Your task to perform on an android device: remove spam from my inbox in the gmail app Image 0: 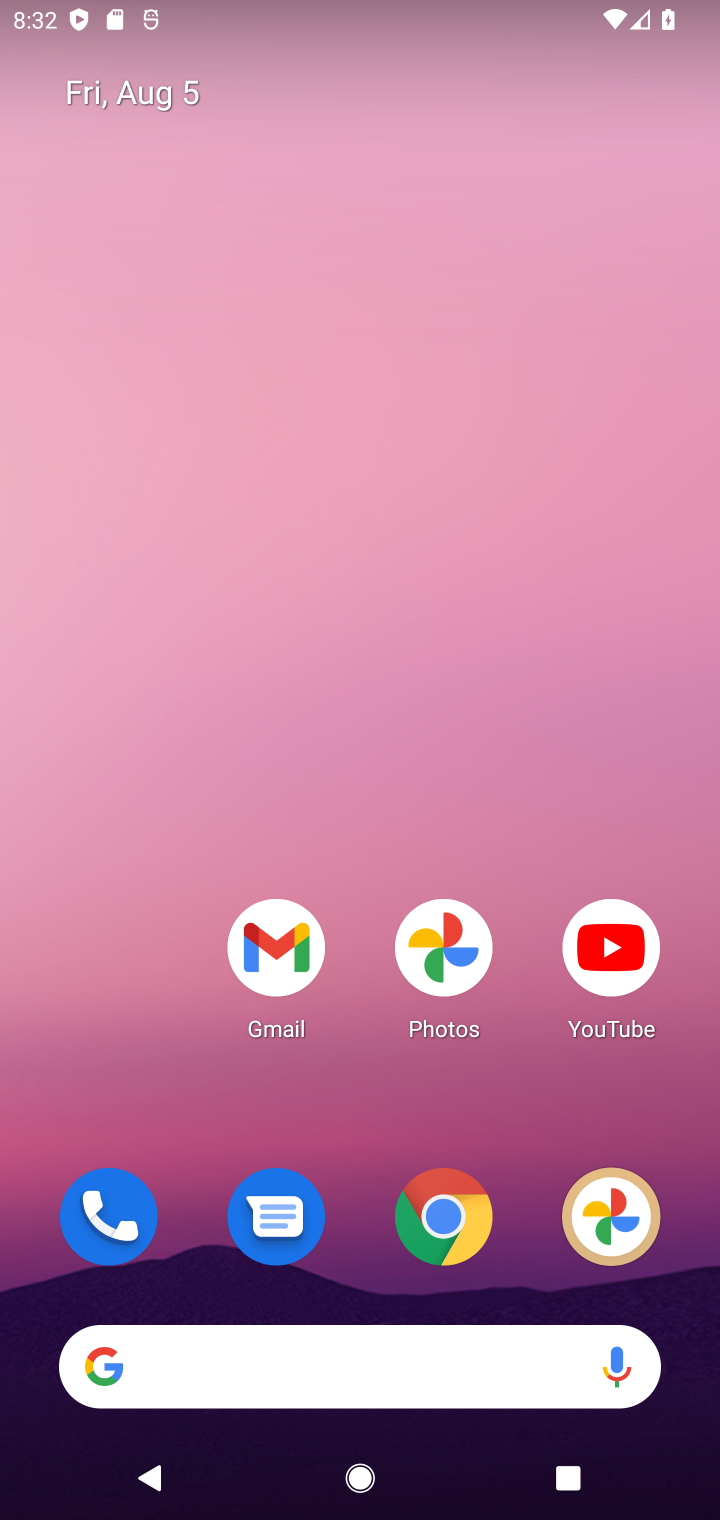
Step 0: drag from (401, 1162) to (444, 418)
Your task to perform on an android device: remove spam from my inbox in the gmail app Image 1: 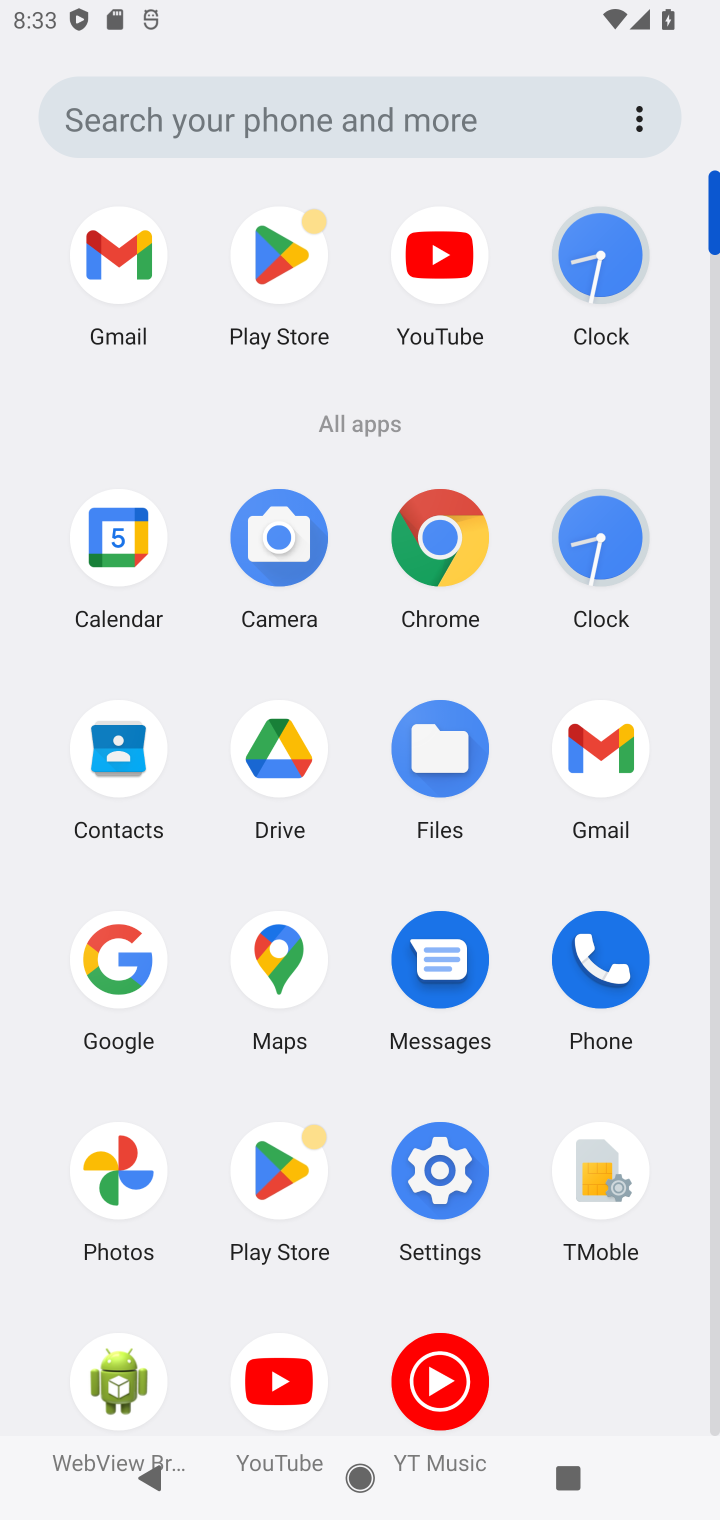
Step 1: click (587, 756)
Your task to perform on an android device: remove spam from my inbox in the gmail app Image 2: 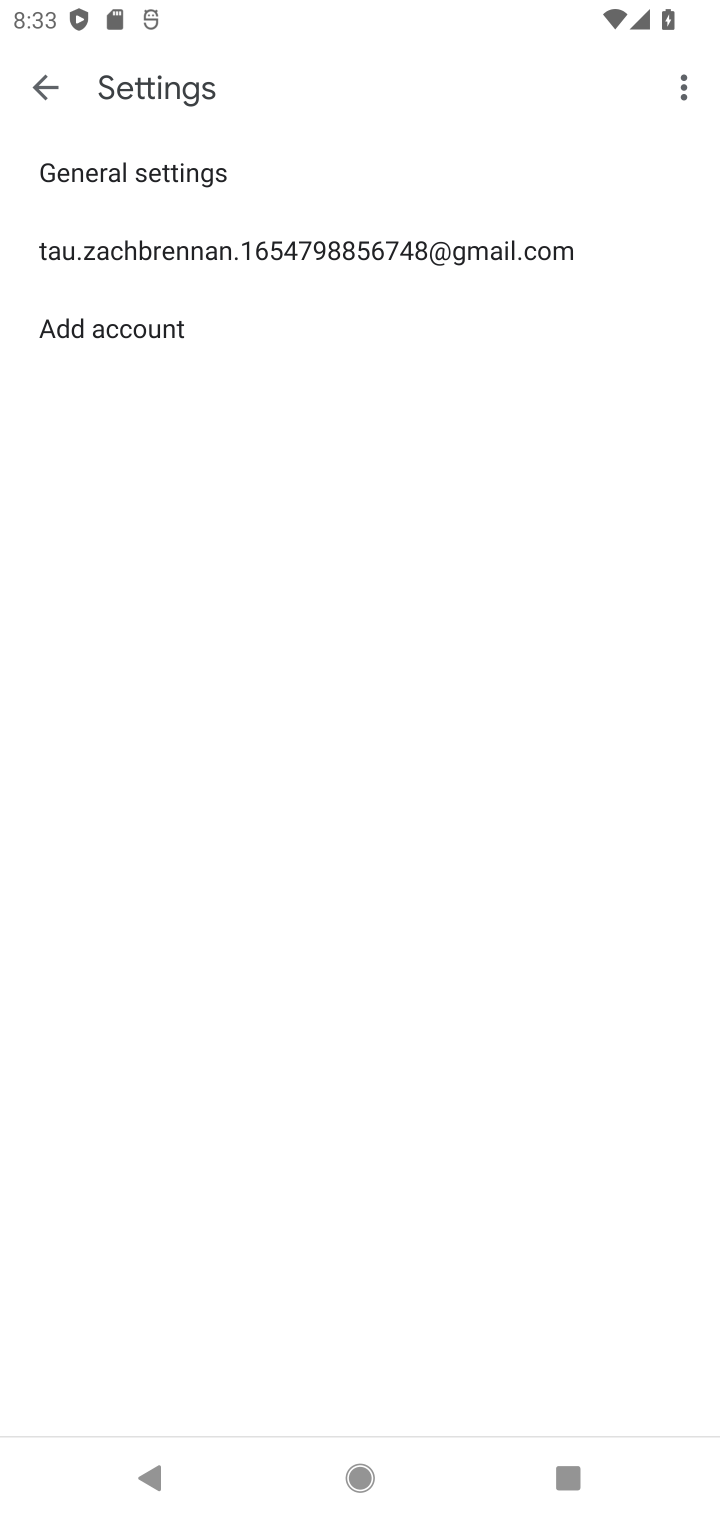
Step 2: click (362, 247)
Your task to perform on an android device: remove spam from my inbox in the gmail app Image 3: 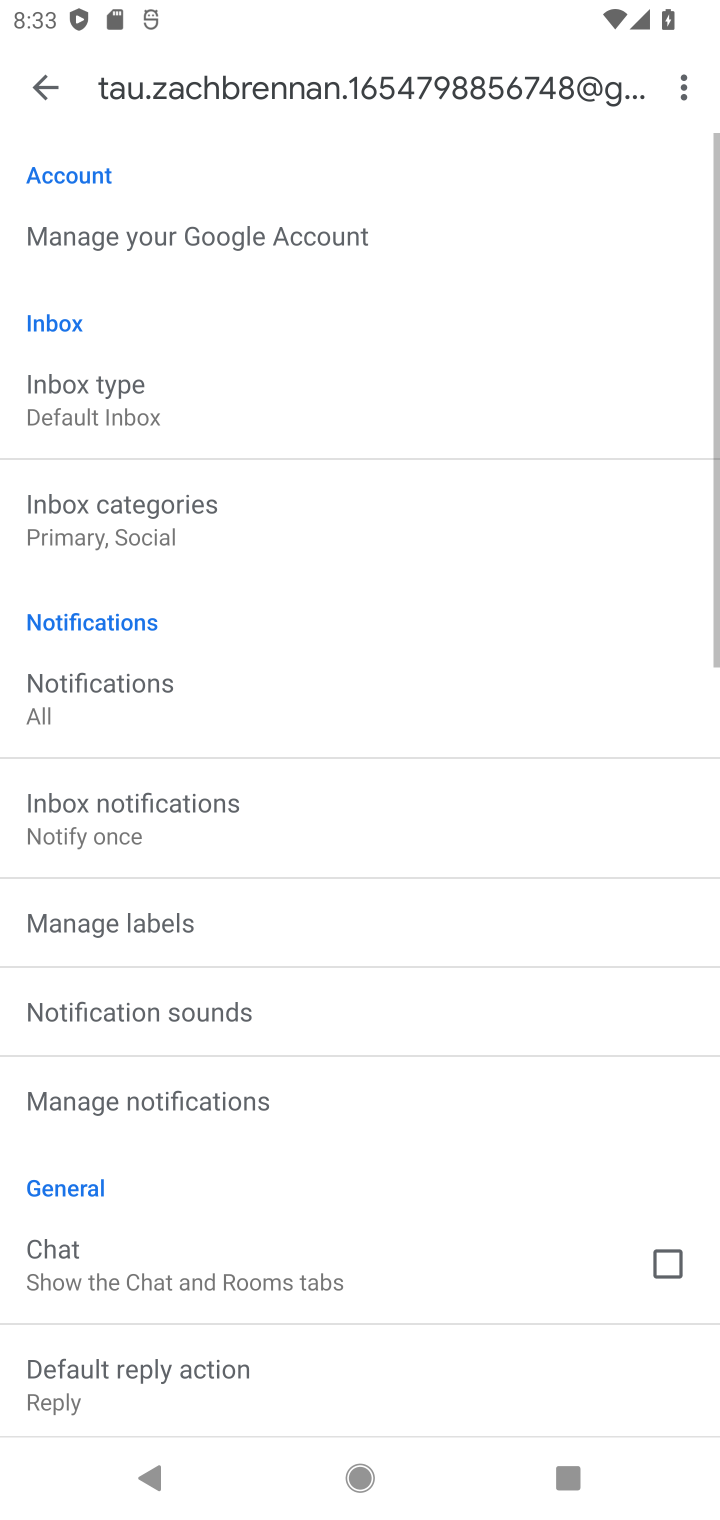
Step 3: drag from (229, 996) to (412, 302)
Your task to perform on an android device: remove spam from my inbox in the gmail app Image 4: 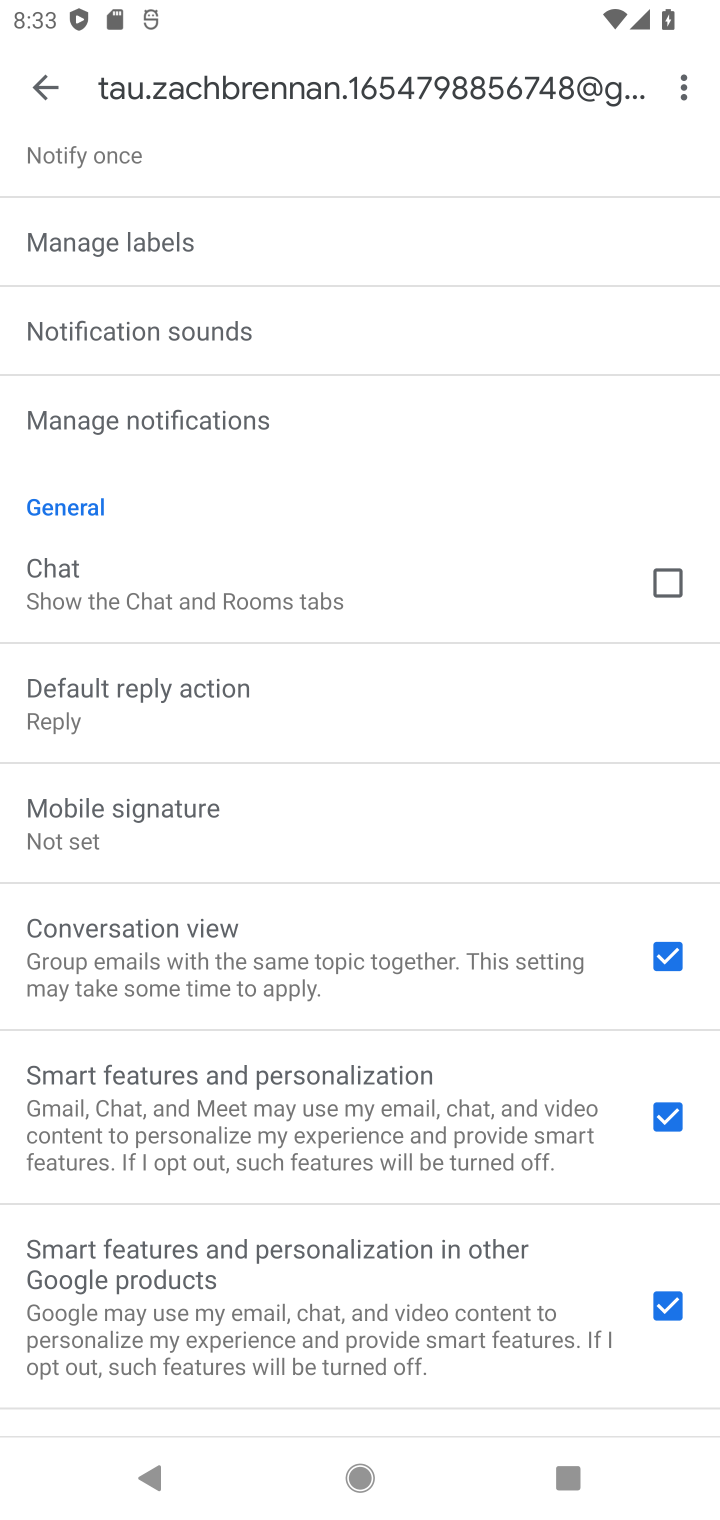
Step 4: click (58, 90)
Your task to perform on an android device: remove spam from my inbox in the gmail app Image 5: 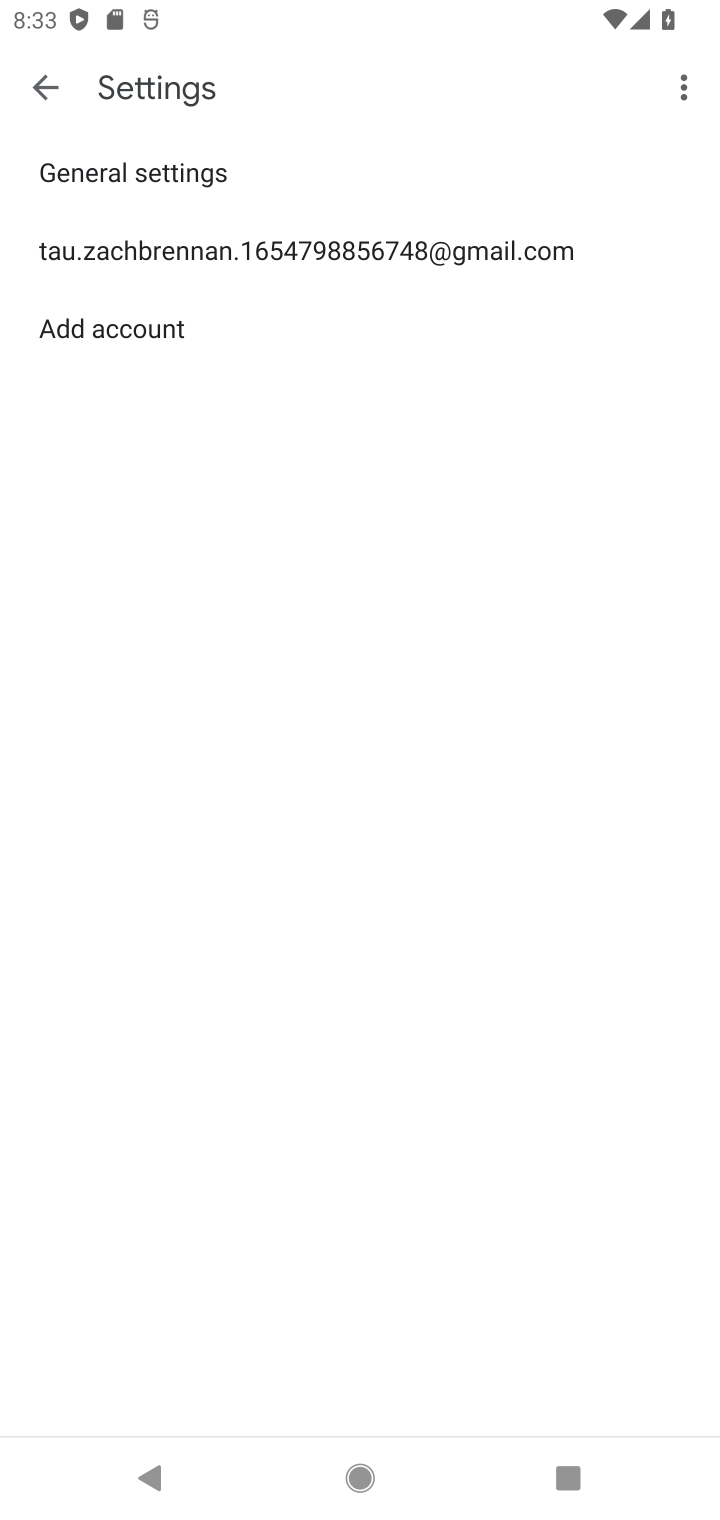
Step 5: click (60, 94)
Your task to perform on an android device: remove spam from my inbox in the gmail app Image 6: 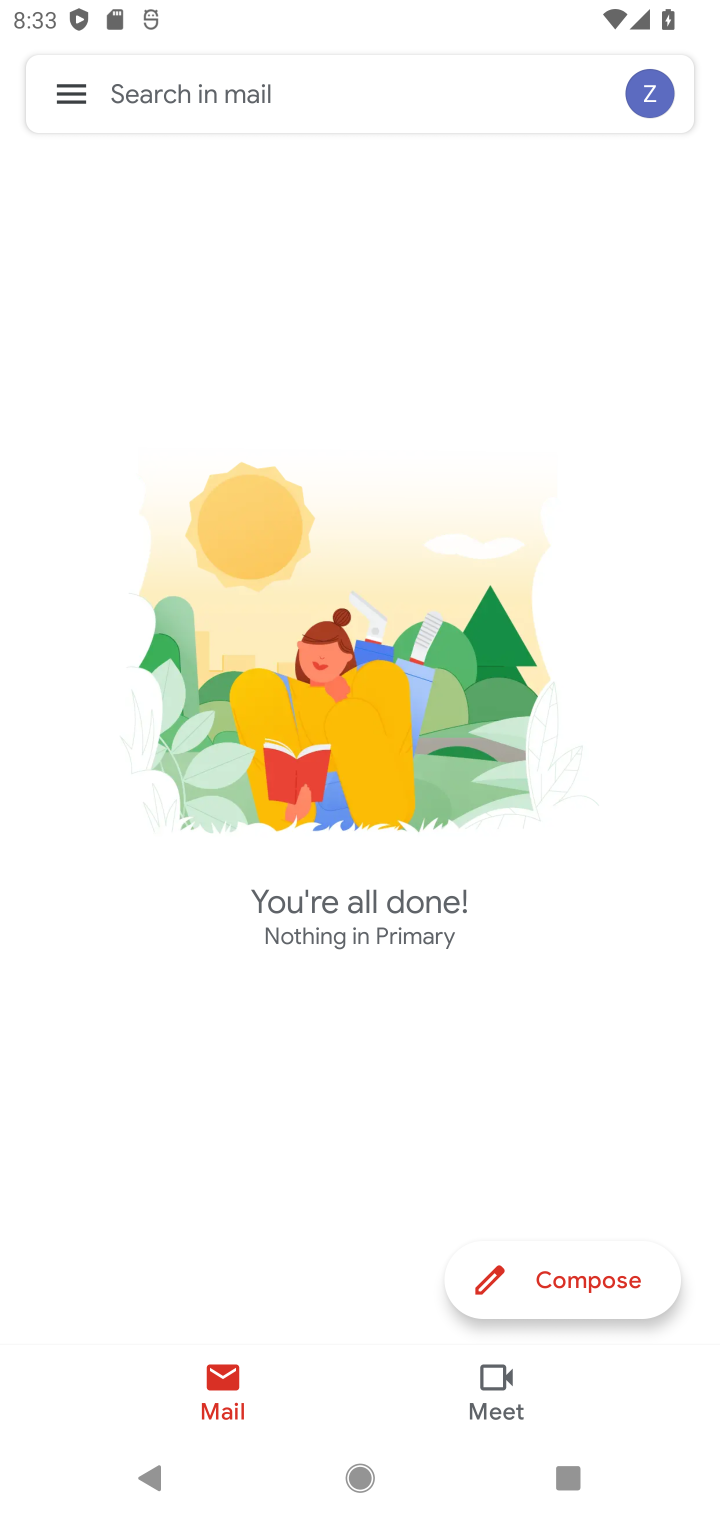
Step 6: click (74, 88)
Your task to perform on an android device: remove spam from my inbox in the gmail app Image 7: 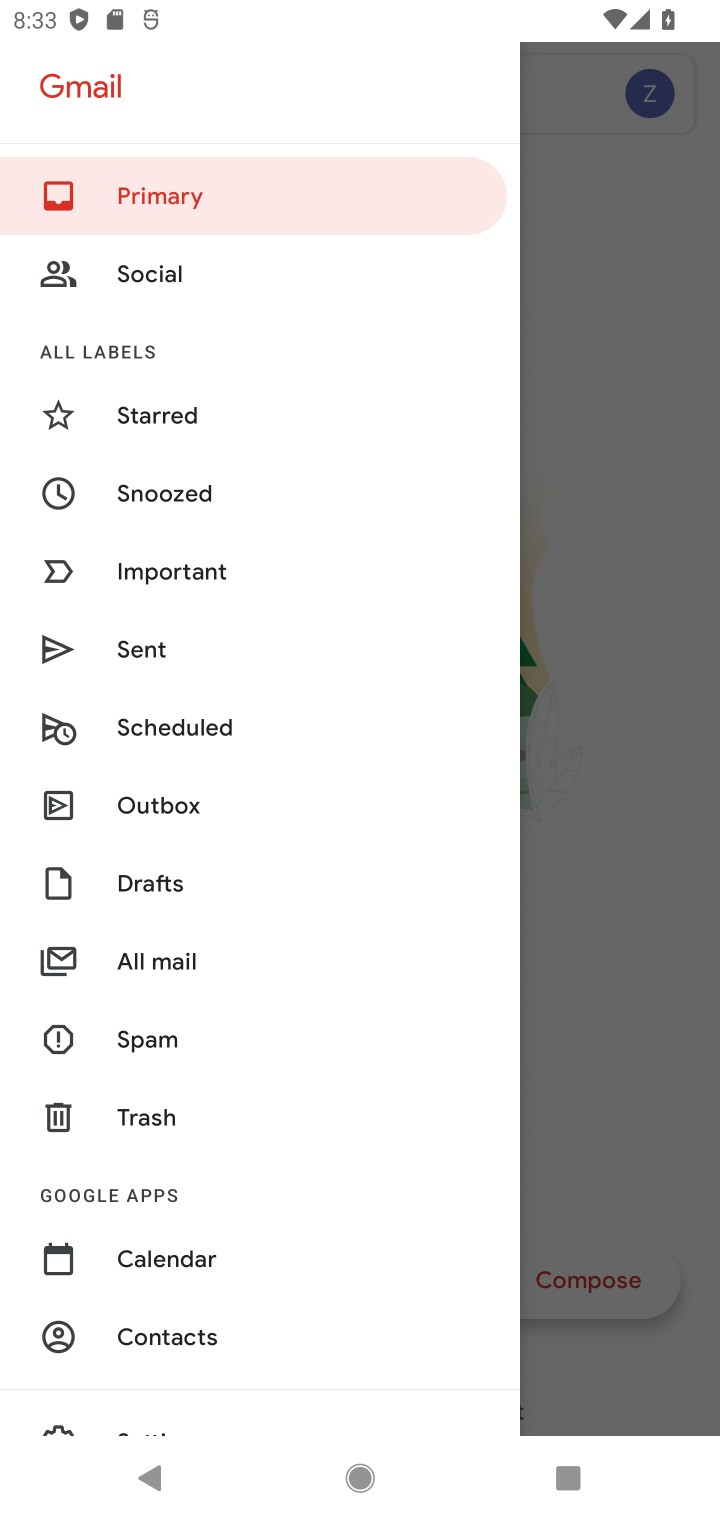
Step 7: click (149, 1047)
Your task to perform on an android device: remove spam from my inbox in the gmail app Image 8: 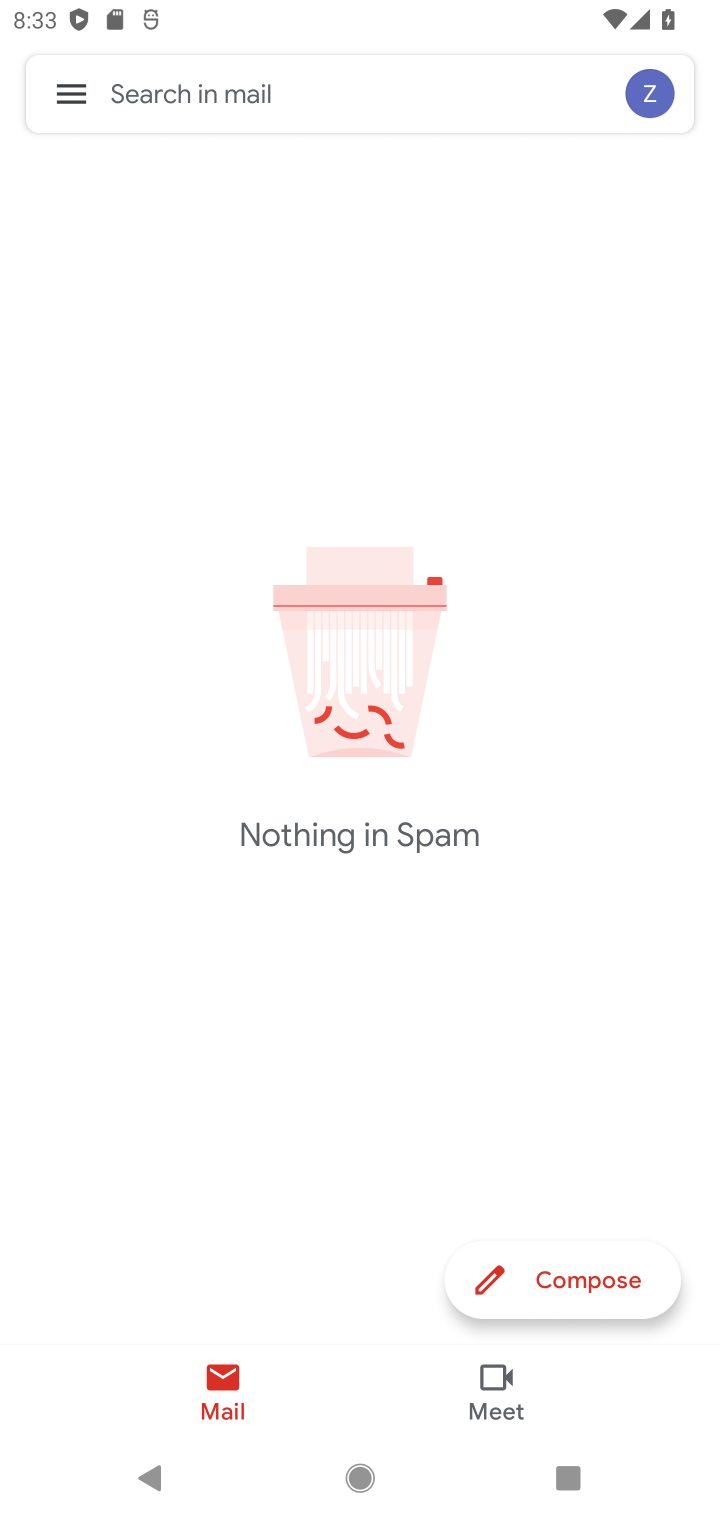
Step 8: task complete